Your task to perform on an android device: Open Google Maps and go to "Timeline" Image 0: 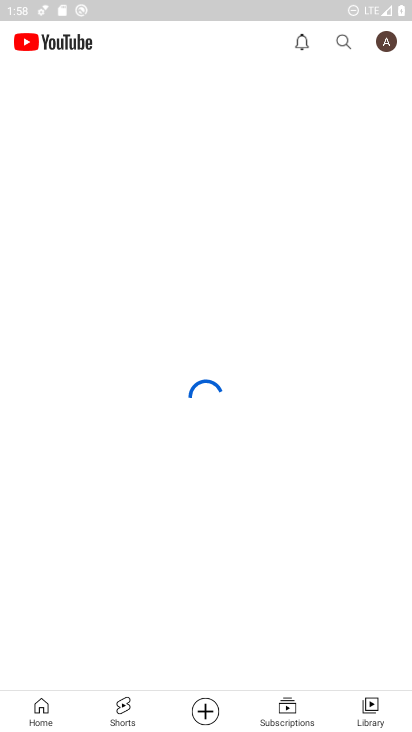
Step 0: click (310, 63)
Your task to perform on an android device: Open Google Maps and go to "Timeline" Image 1: 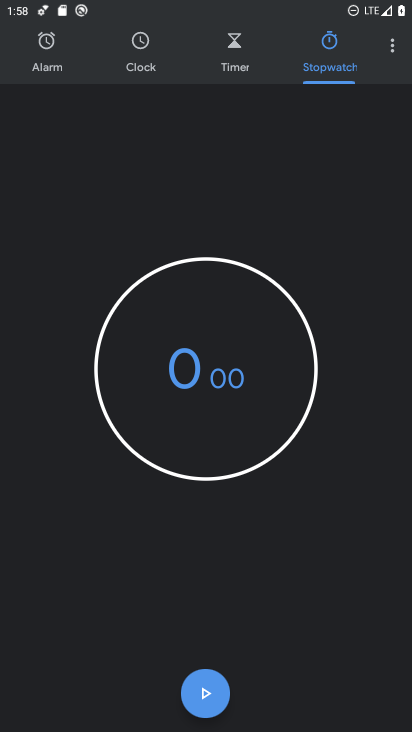
Step 1: press home button
Your task to perform on an android device: Open Google Maps and go to "Timeline" Image 2: 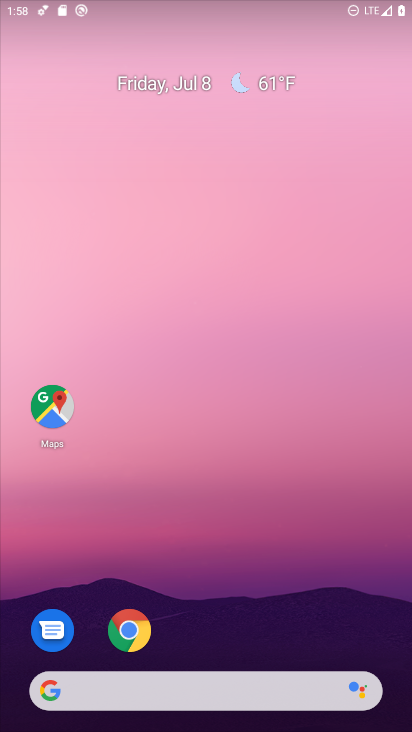
Step 2: drag from (388, 671) to (288, 11)
Your task to perform on an android device: Open Google Maps and go to "Timeline" Image 3: 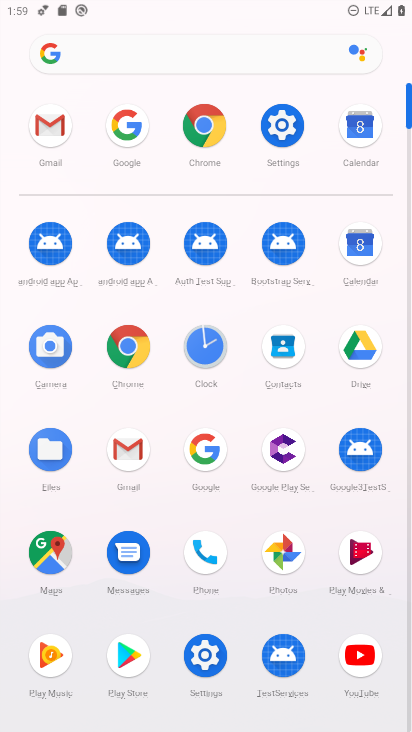
Step 3: click (44, 549)
Your task to perform on an android device: Open Google Maps and go to "Timeline" Image 4: 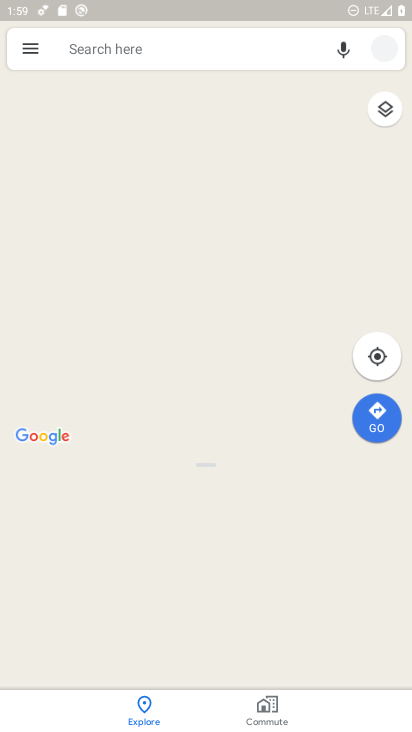
Step 4: click (30, 50)
Your task to perform on an android device: Open Google Maps and go to "Timeline" Image 5: 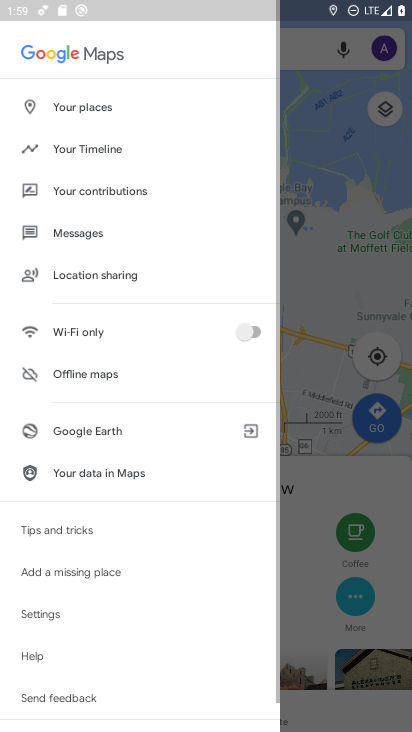
Step 5: click (122, 146)
Your task to perform on an android device: Open Google Maps and go to "Timeline" Image 6: 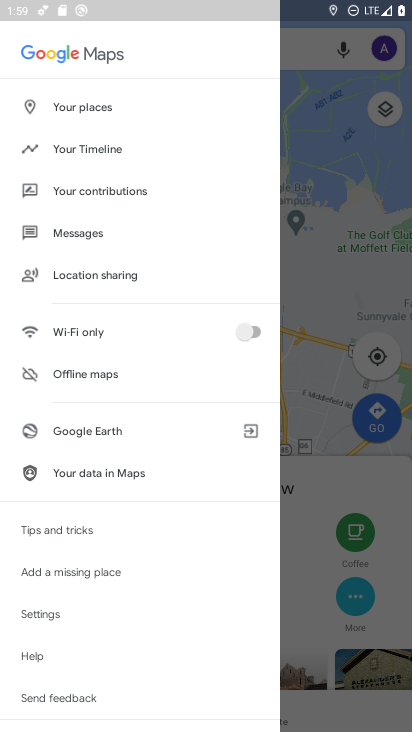
Step 6: click (104, 152)
Your task to perform on an android device: Open Google Maps and go to "Timeline" Image 7: 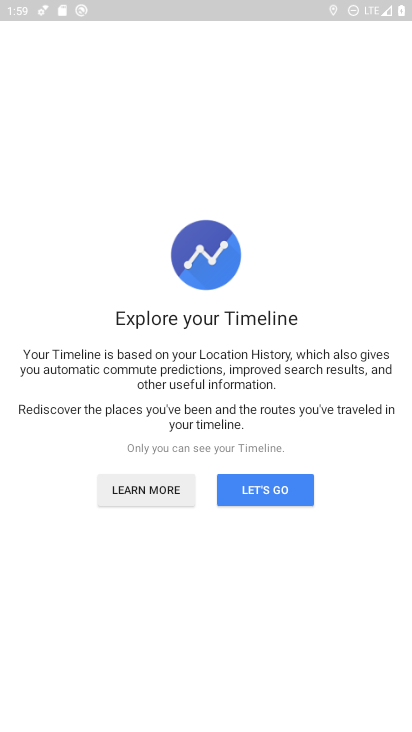
Step 7: task complete